Your task to perform on an android device: check battery use Image 0: 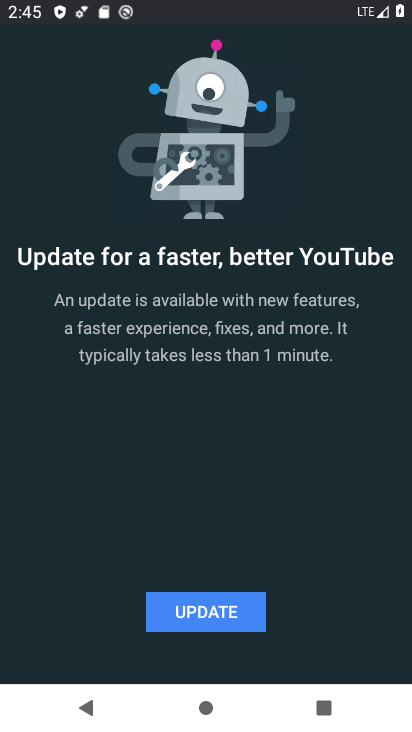
Step 0: press home button
Your task to perform on an android device: check battery use Image 1: 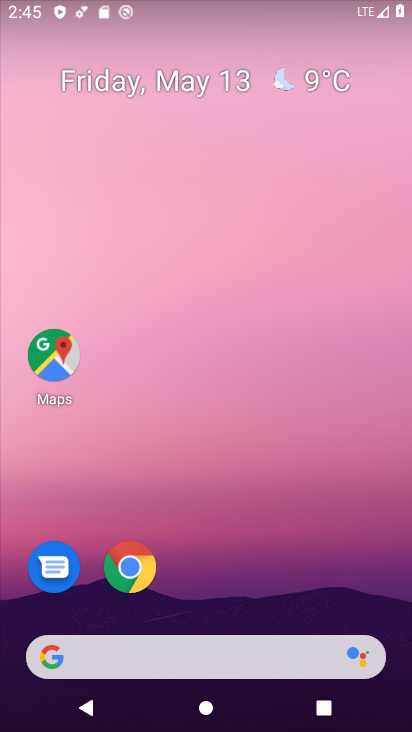
Step 1: drag from (304, 615) to (393, 2)
Your task to perform on an android device: check battery use Image 2: 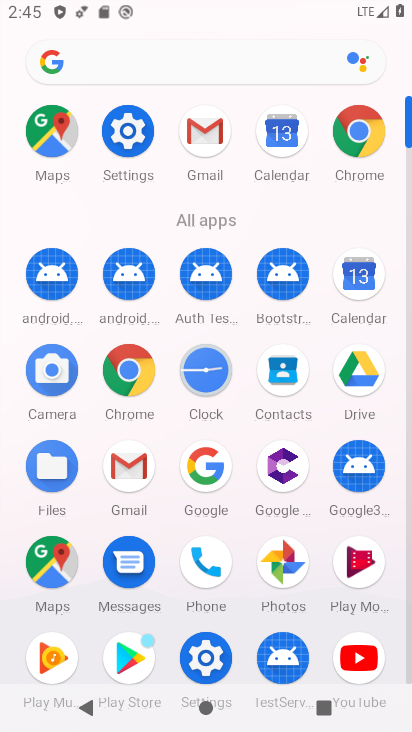
Step 2: click (128, 134)
Your task to perform on an android device: check battery use Image 3: 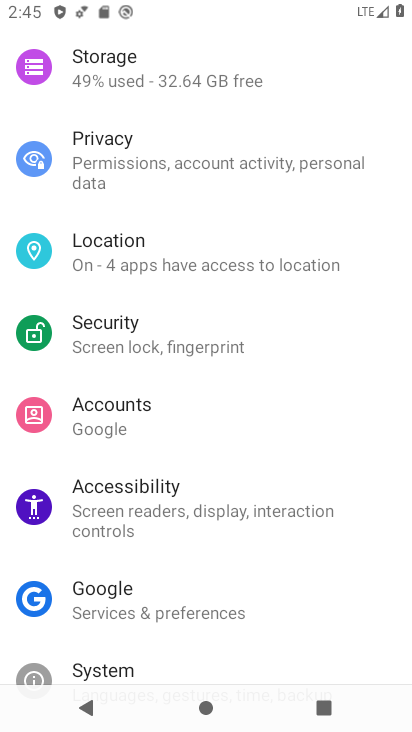
Step 3: drag from (306, 381) to (313, 508)
Your task to perform on an android device: check battery use Image 4: 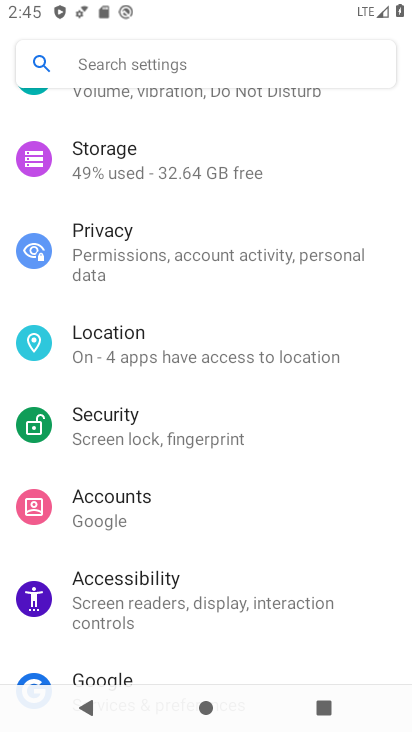
Step 4: drag from (189, 238) to (217, 440)
Your task to perform on an android device: check battery use Image 5: 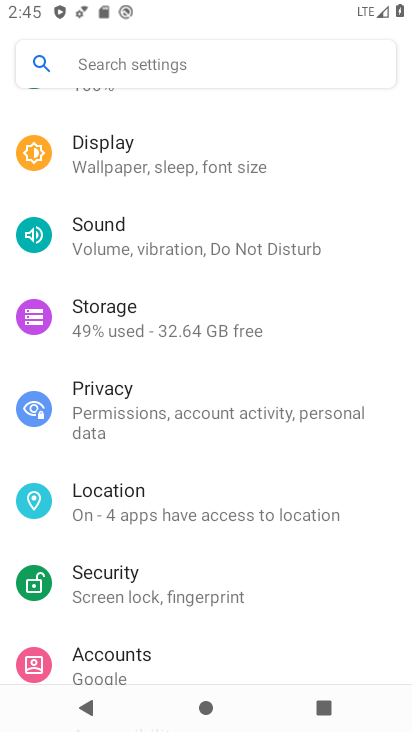
Step 5: drag from (234, 251) to (234, 458)
Your task to perform on an android device: check battery use Image 6: 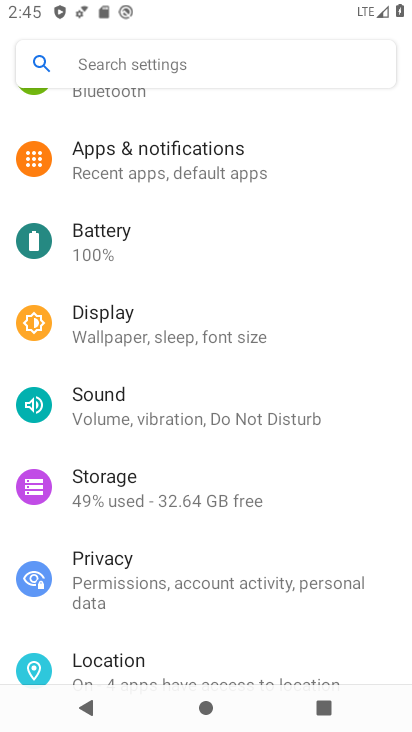
Step 6: click (84, 250)
Your task to perform on an android device: check battery use Image 7: 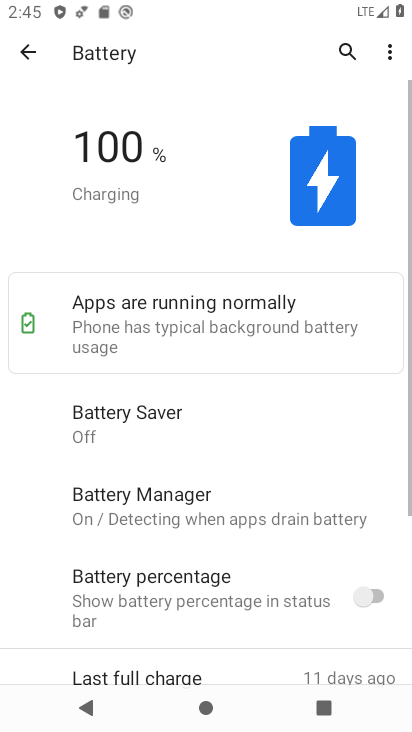
Step 7: click (398, 43)
Your task to perform on an android device: check battery use Image 8: 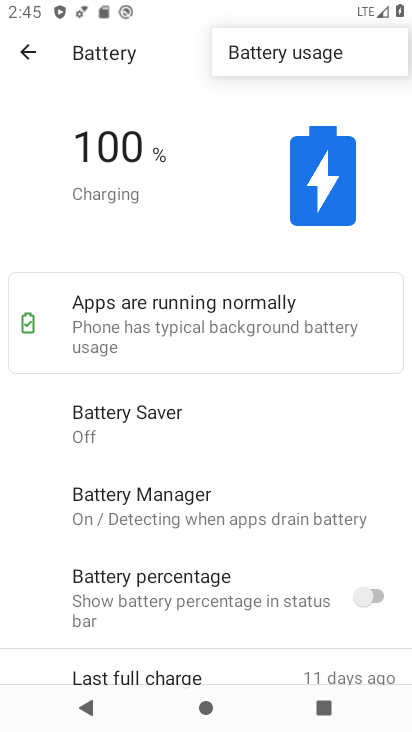
Step 8: click (301, 58)
Your task to perform on an android device: check battery use Image 9: 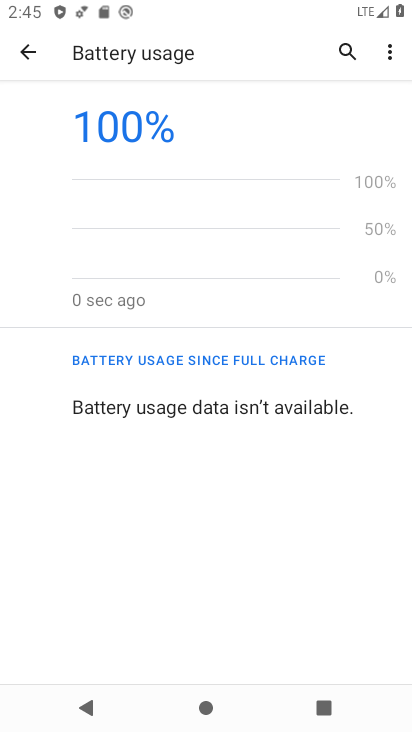
Step 9: task complete